Your task to perform on an android device: Clear the shopping cart on ebay. Search for macbook pro on ebay, select the first entry, add it to the cart, then select checkout. Image 0: 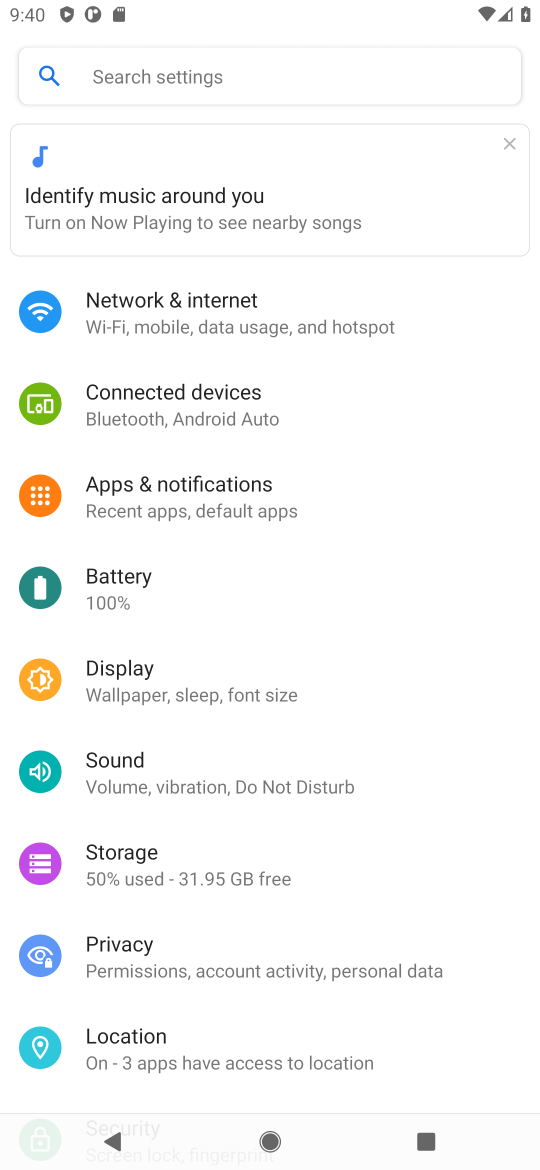
Step 0: press home button
Your task to perform on an android device: Clear the shopping cart on ebay. Search for macbook pro on ebay, select the first entry, add it to the cart, then select checkout. Image 1: 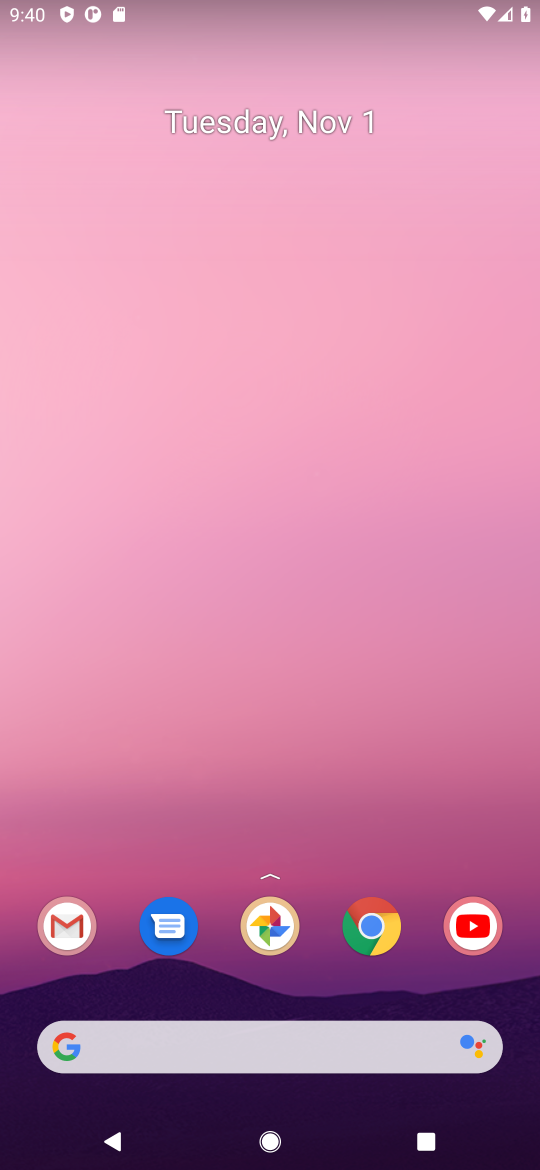
Step 1: click (373, 946)
Your task to perform on an android device: Clear the shopping cart on ebay. Search for macbook pro on ebay, select the first entry, add it to the cart, then select checkout. Image 2: 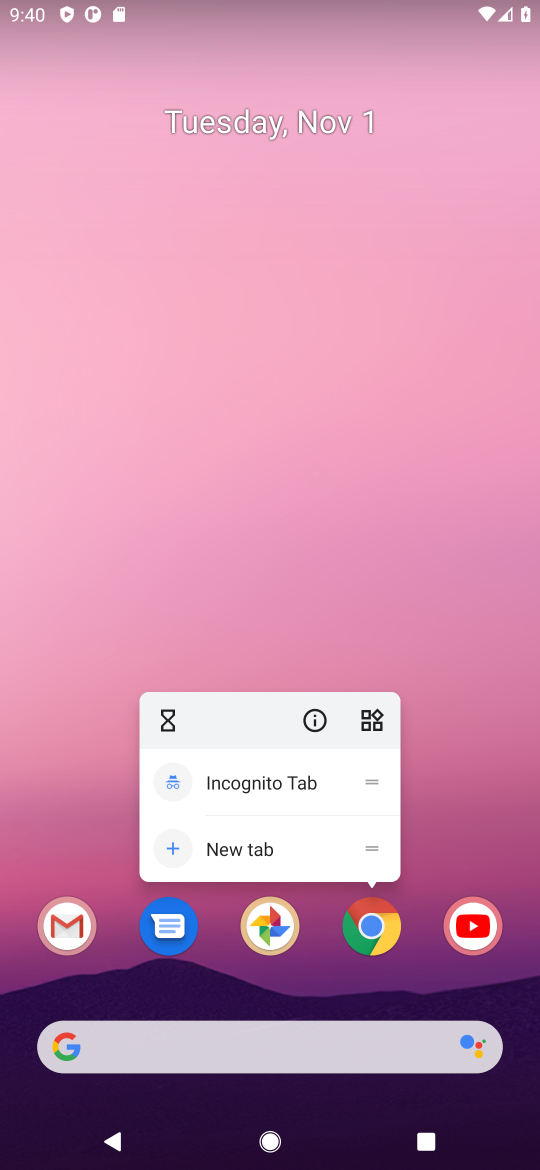
Step 2: click (377, 916)
Your task to perform on an android device: Clear the shopping cart on ebay. Search for macbook pro on ebay, select the first entry, add it to the cart, then select checkout. Image 3: 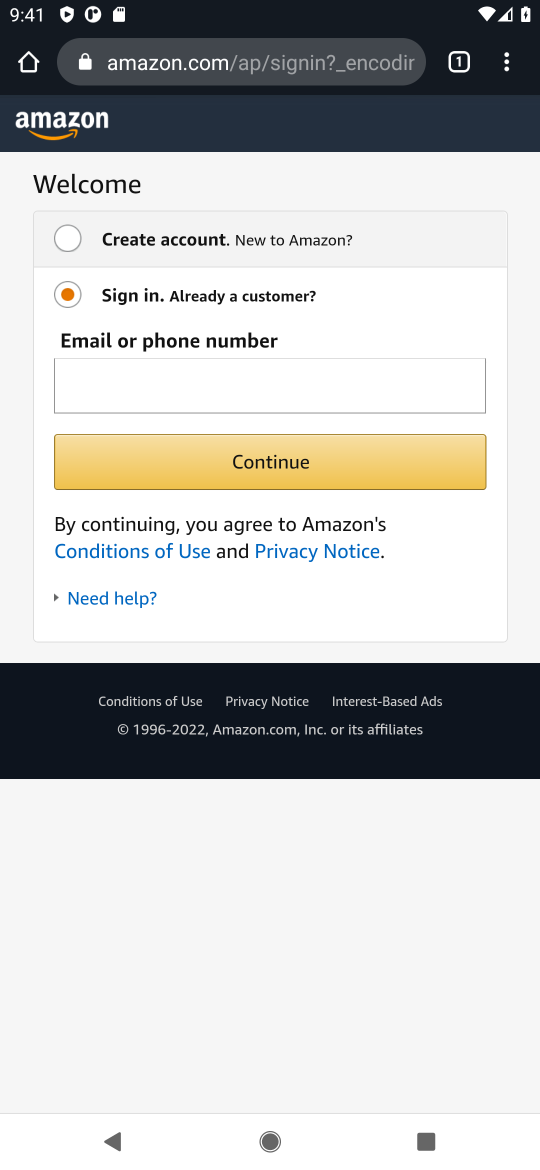
Step 3: click (140, 79)
Your task to perform on an android device: Clear the shopping cart on ebay. Search for macbook pro on ebay, select the first entry, add it to the cart, then select checkout. Image 4: 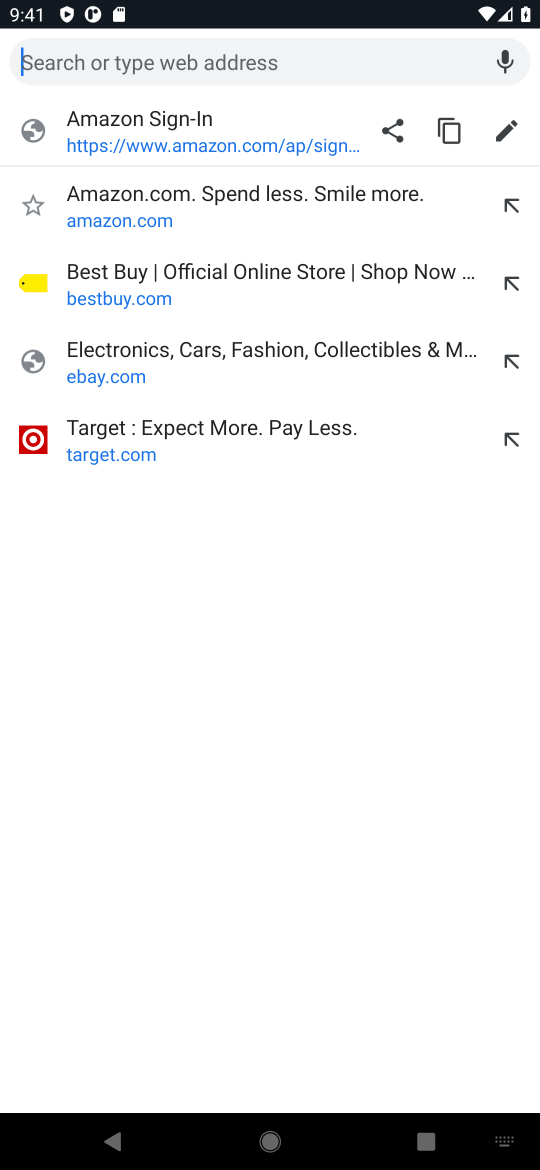
Step 4: type "ebay"
Your task to perform on an android device: Clear the shopping cart on ebay. Search for macbook pro on ebay, select the first entry, add it to the cart, then select checkout. Image 5: 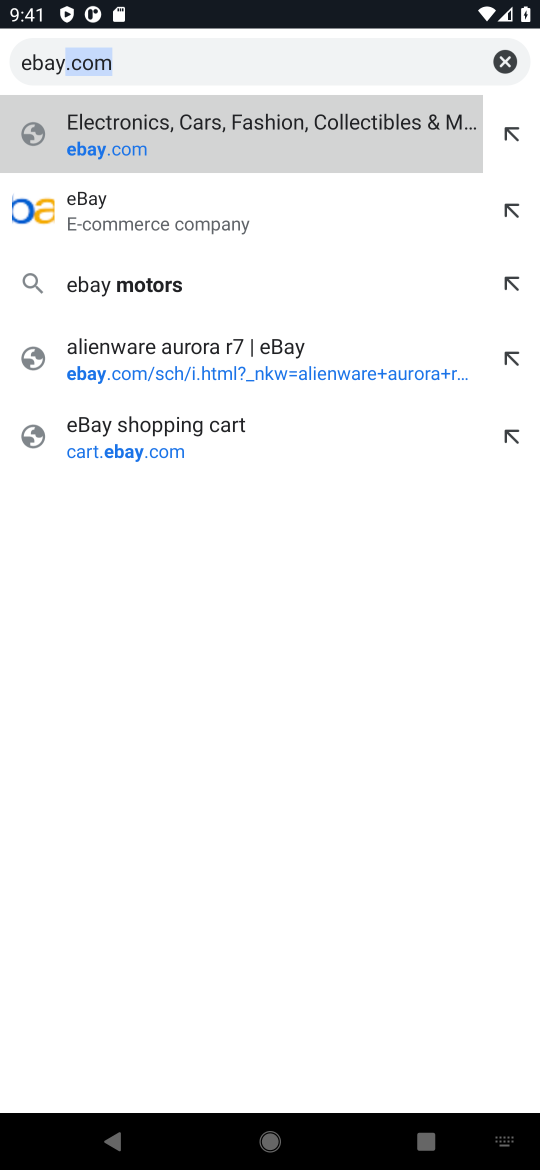
Step 5: click (160, 210)
Your task to perform on an android device: Clear the shopping cart on ebay. Search for macbook pro on ebay, select the first entry, add it to the cart, then select checkout. Image 6: 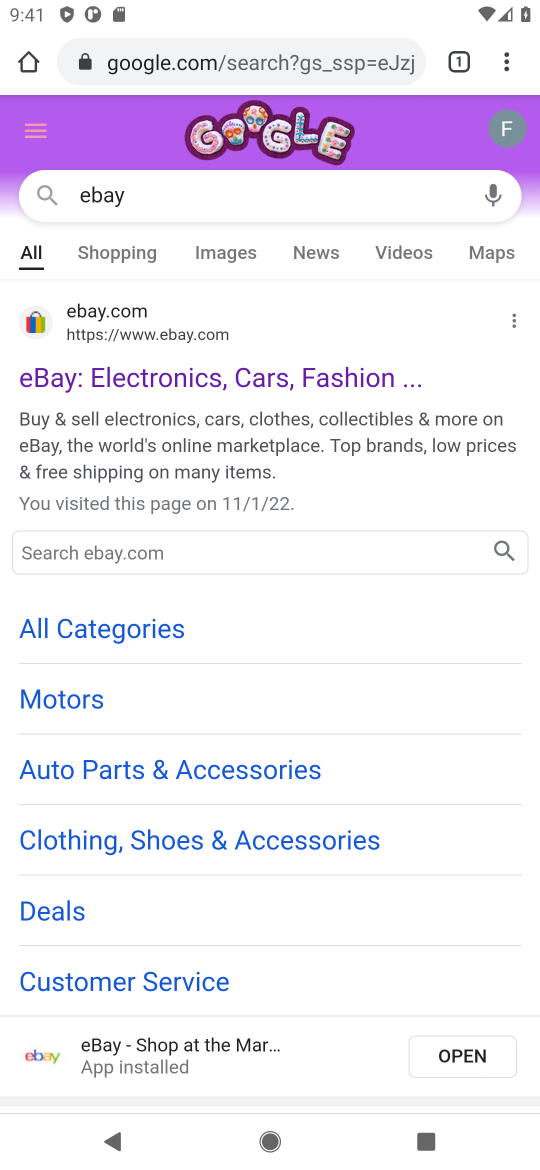
Step 6: click (142, 384)
Your task to perform on an android device: Clear the shopping cart on ebay. Search for macbook pro on ebay, select the first entry, add it to the cart, then select checkout. Image 7: 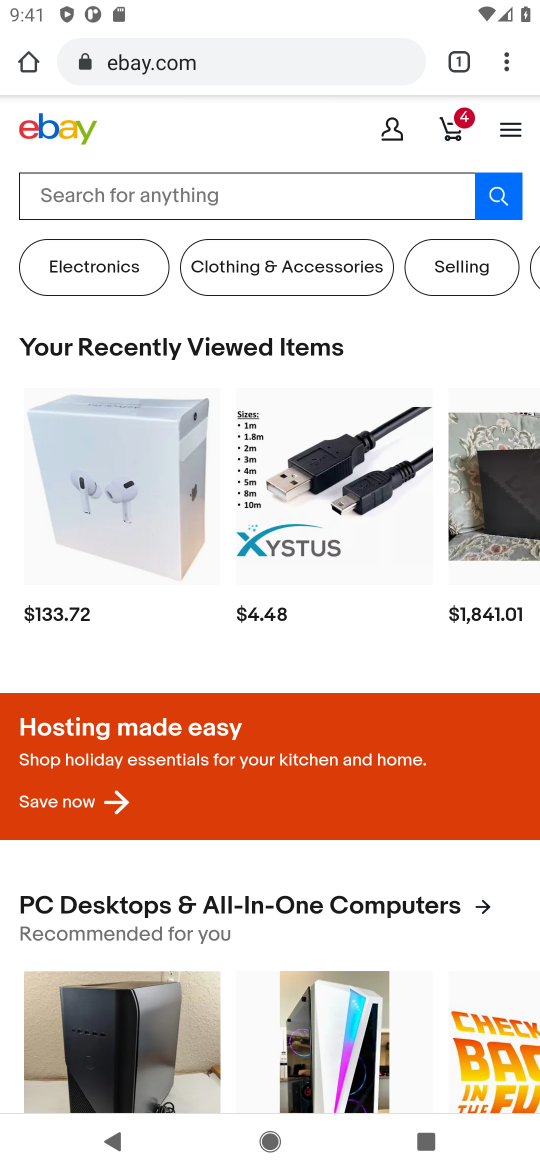
Step 7: click (296, 197)
Your task to perform on an android device: Clear the shopping cart on ebay. Search for macbook pro on ebay, select the first entry, add it to the cart, then select checkout. Image 8: 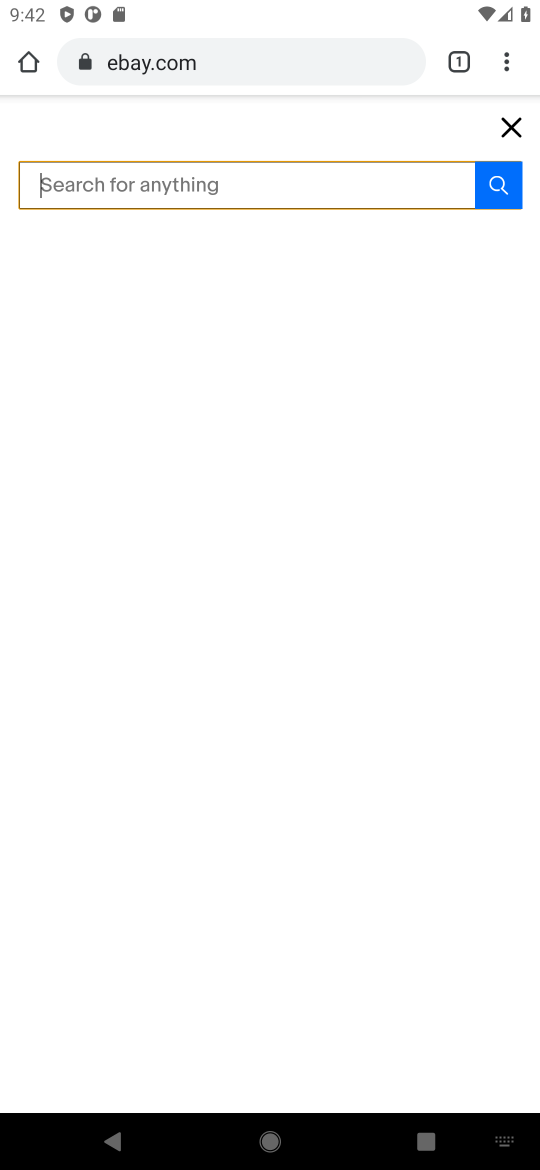
Step 8: type "macbook pro"
Your task to perform on an android device: Clear the shopping cart on ebay. Search for macbook pro on ebay, select the first entry, add it to the cart, then select checkout. Image 9: 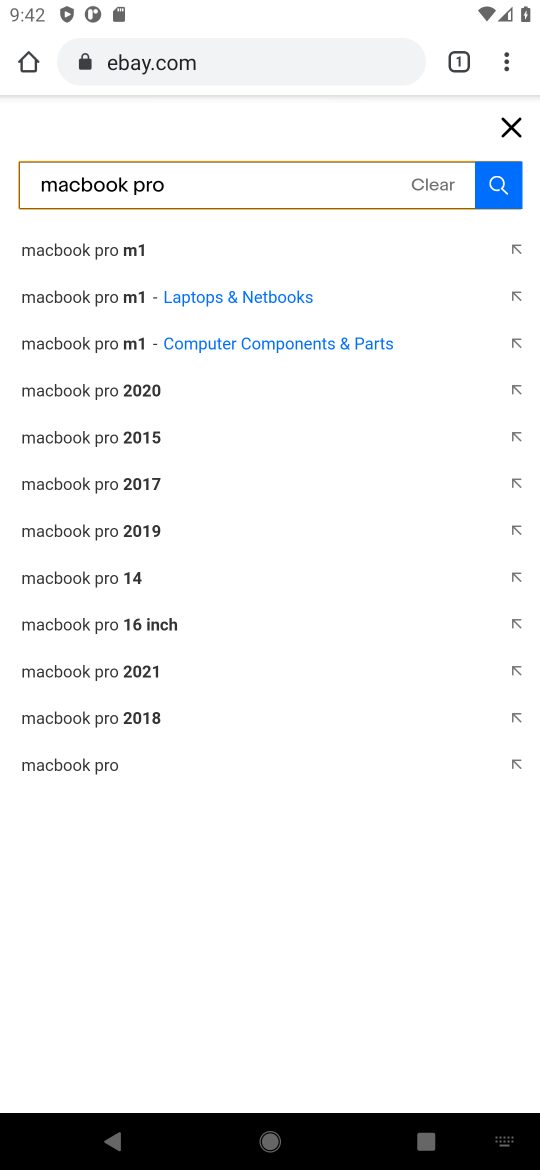
Step 9: type ""
Your task to perform on an android device: Clear the shopping cart on ebay. Search for macbook pro on ebay, select the first entry, add it to the cart, then select checkout. Image 10: 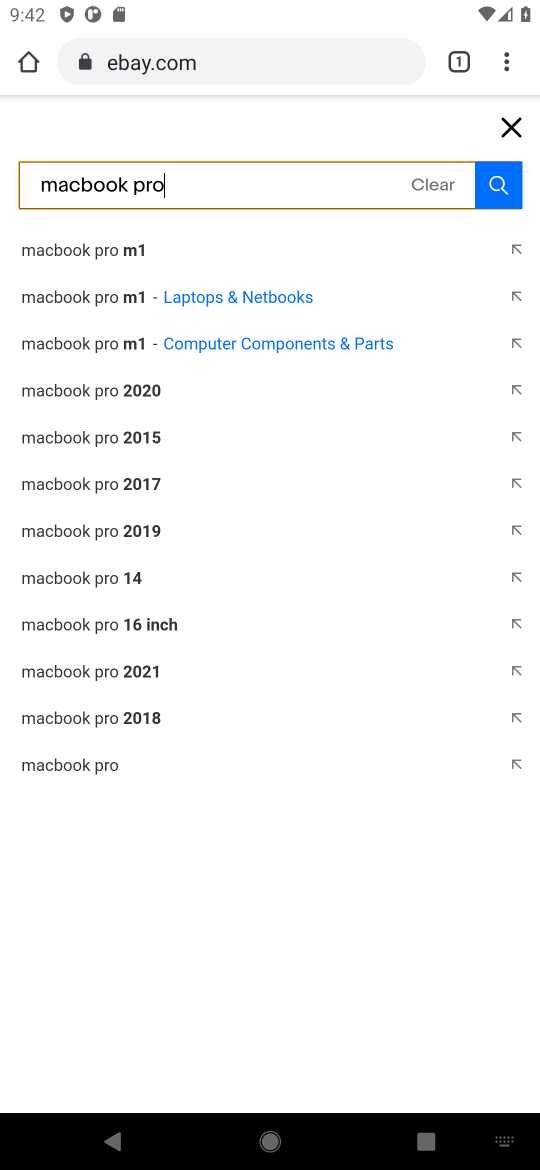
Step 10: click (120, 253)
Your task to perform on an android device: Clear the shopping cart on ebay. Search for macbook pro on ebay, select the first entry, add it to the cart, then select checkout. Image 11: 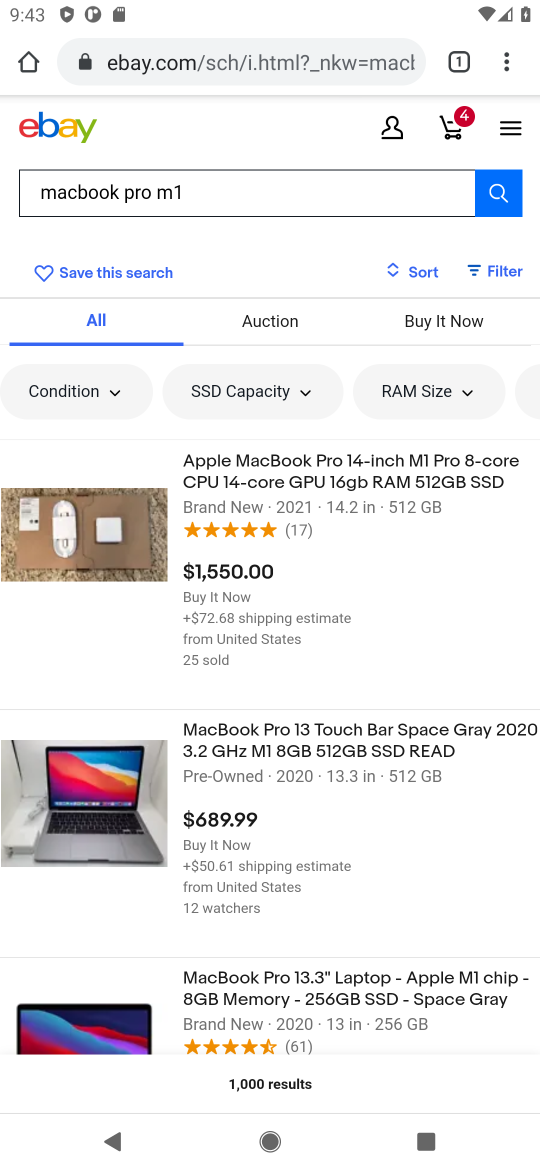
Step 11: click (284, 766)
Your task to perform on an android device: Clear the shopping cart on ebay. Search for macbook pro on ebay, select the first entry, add it to the cart, then select checkout. Image 12: 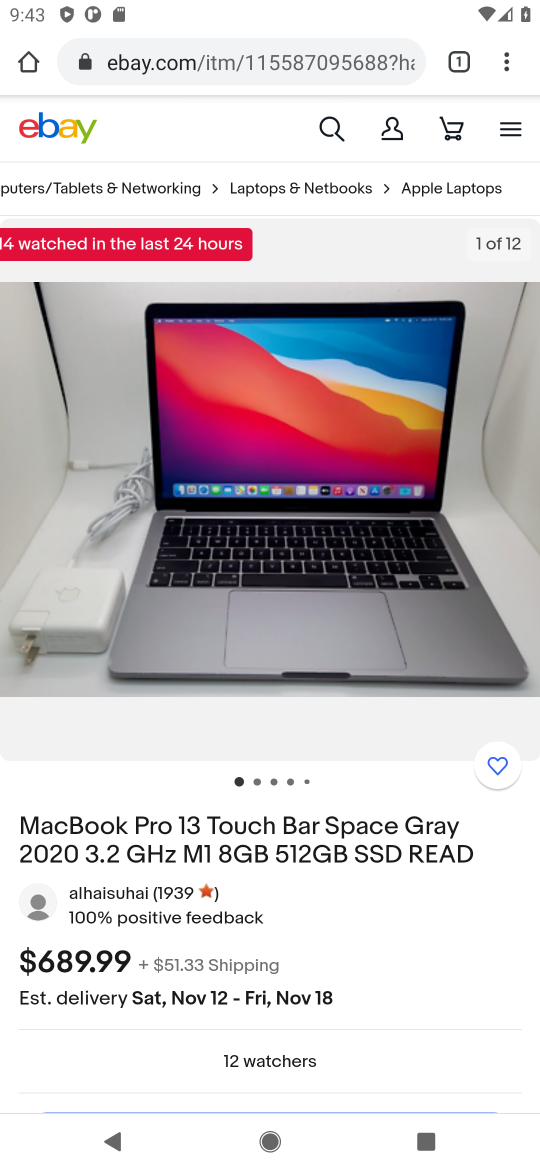
Step 12: drag from (271, 893) to (350, 504)
Your task to perform on an android device: Clear the shopping cart on ebay. Search for macbook pro on ebay, select the first entry, add it to the cart, then select checkout. Image 13: 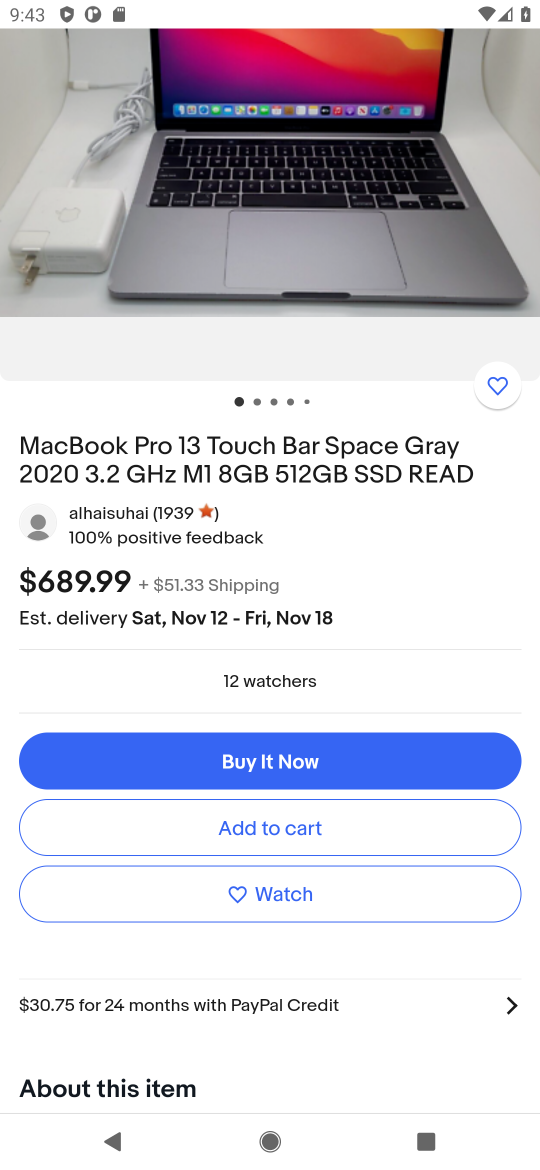
Step 13: click (297, 839)
Your task to perform on an android device: Clear the shopping cart on ebay. Search for macbook pro on ebay, select the first entry, add it to the cart, then select checkout. Image 14: 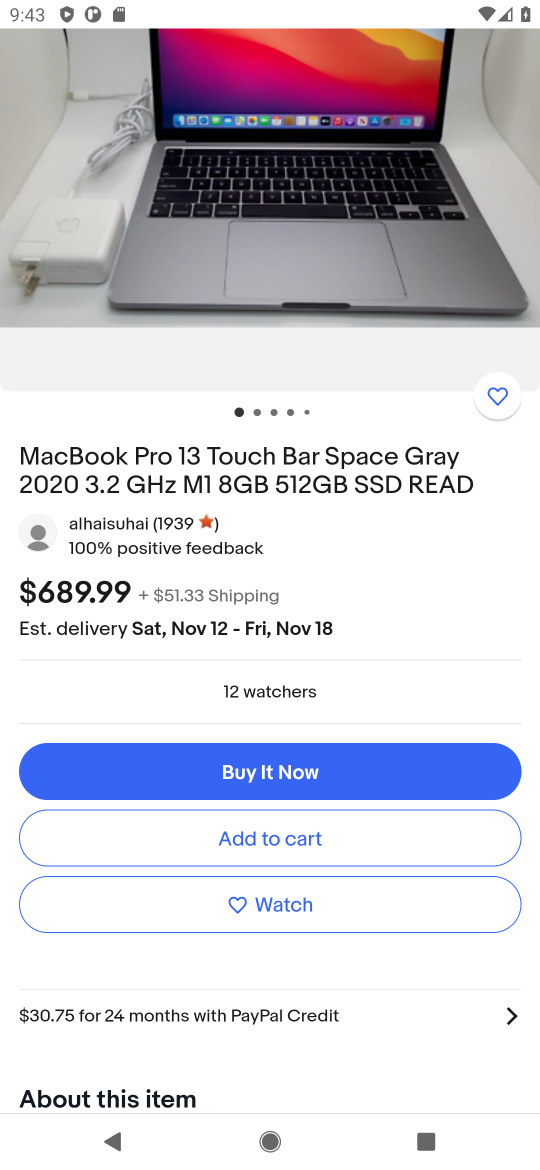
Step 14: click (306, 837)
Your task to perform on an android device: Clear the shopping cart on ebay. Search for macbook pro on ebay, select the first entry, add it to the cart, then select checkout. Image 15: 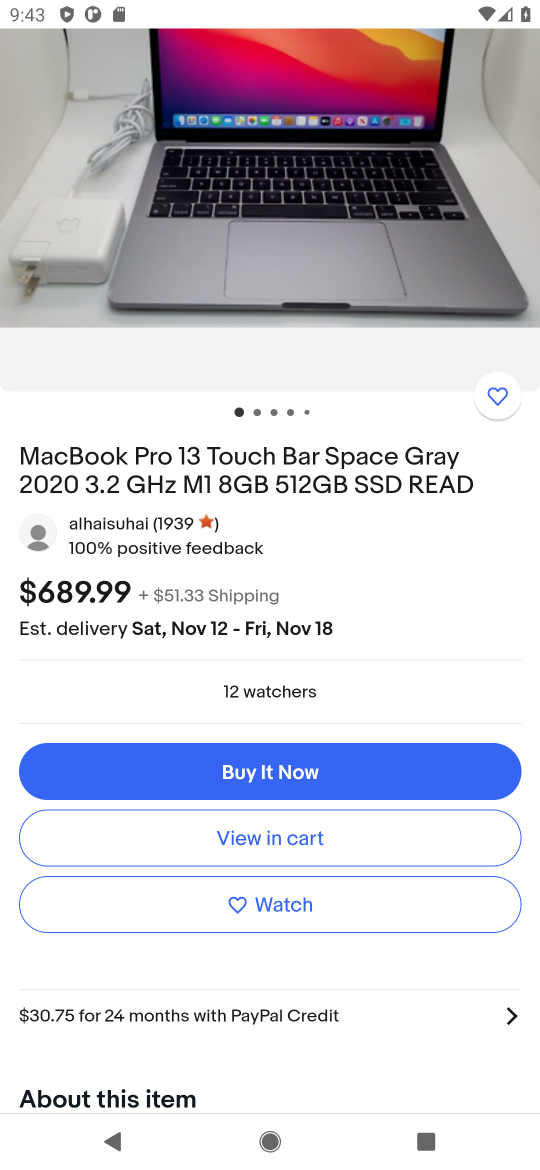
Step 15: click (303, 833)
Your task to perform on an android device: Clear the shopping cart on ebay. Search for macbook pro on ebay, select the first entry, add it to the cart, then select checkout. Image 16: 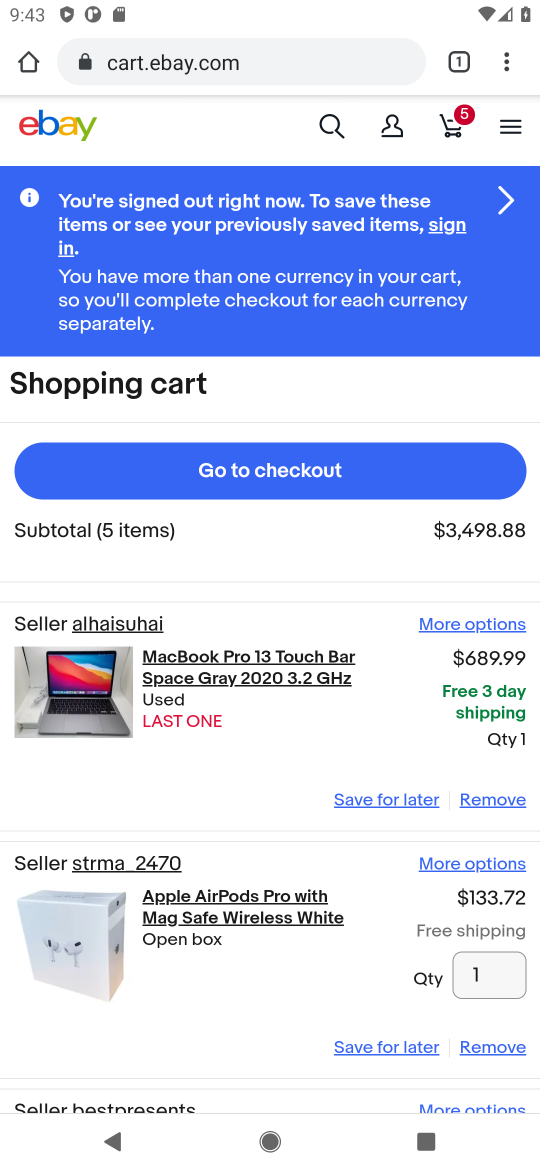
Step 16: click (252, 476)
Your task to perform on an android device: Clear the shopping cart on ebay. Search for macbook pro on ebay, select the first entry, add it to the cart, then select checkout. Image 17: 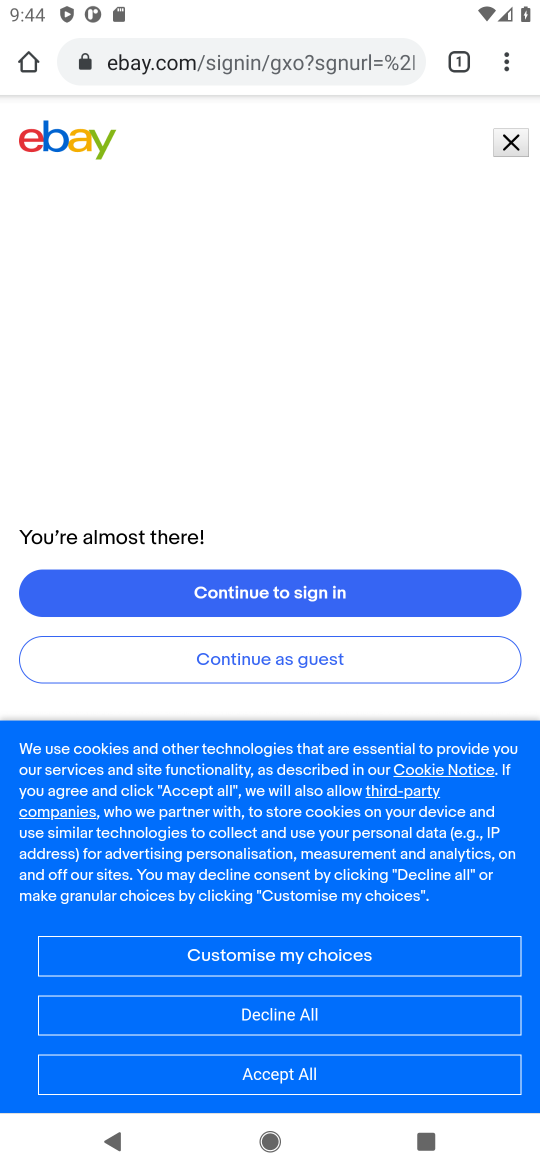
Step 17: task complete